Your task to perform on an android device: Go to battery settings Image 0: 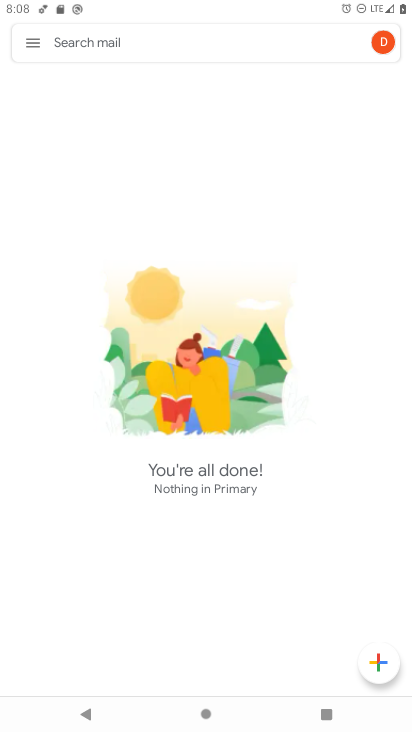
Step 0: press home button
Your task to perform on an android device: Go to battery settings Image 1: 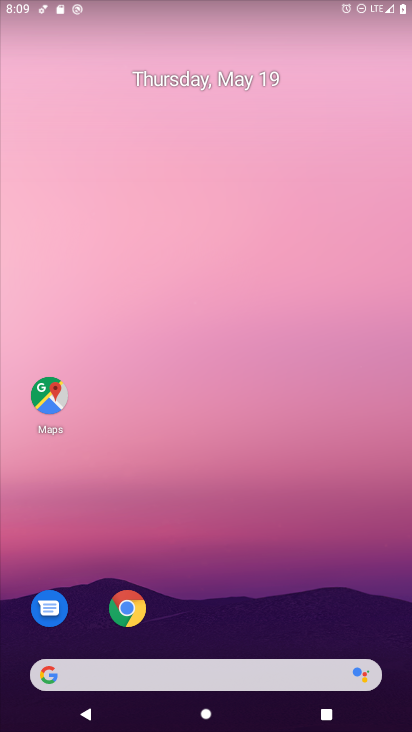
Step 1: drag from (396, 696) to (349, 115)
Your task to perform on an android device: Go to battery settings Image 2: 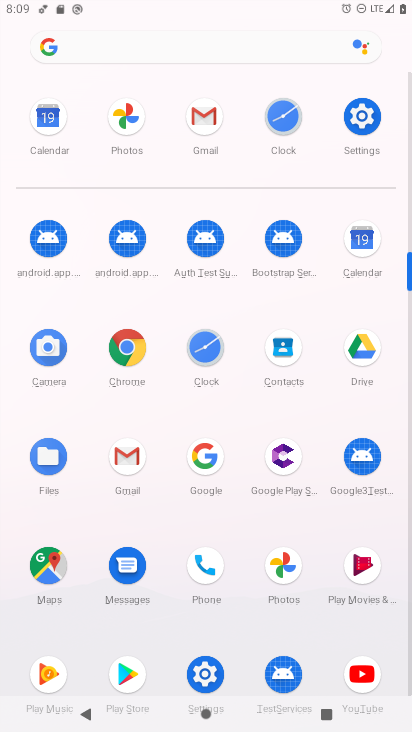
Step 2: click (349, 115)
Your task to perform on an android device: Go to battery settings Image 3: 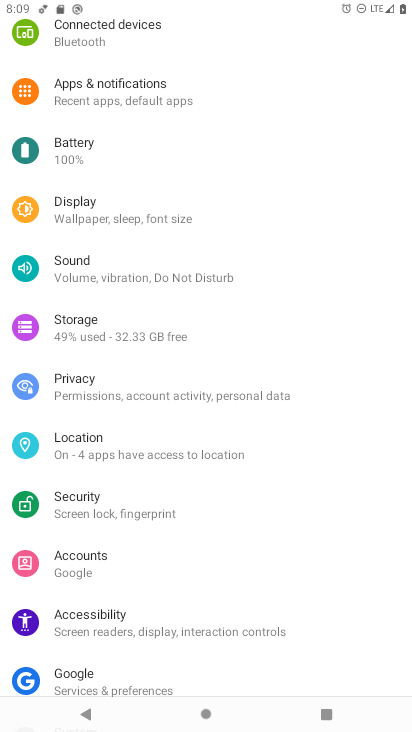
Step 3: click (70, 150)
Your task to perform on an android device: Go to battery settings Image 4: 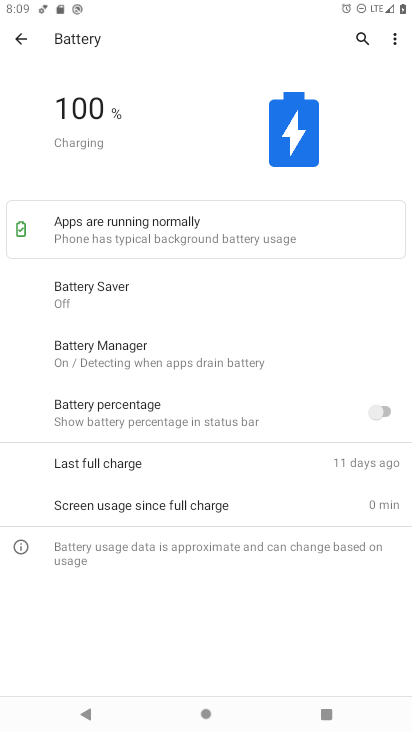
Step 4: task complete